Your task to perform on an android device: Do I have any events this weekend? Image 0: 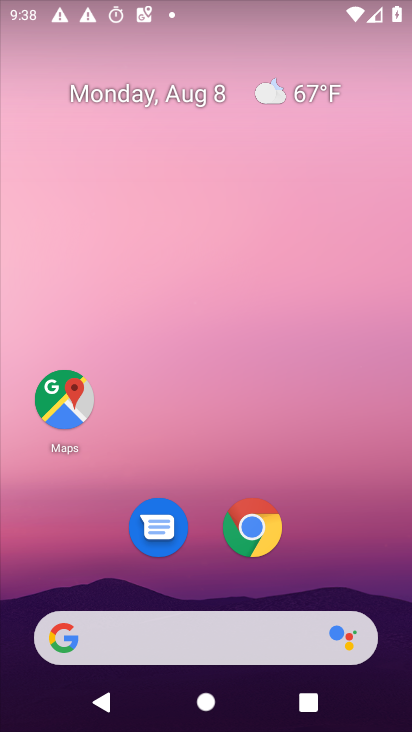
Step 0: drag from (399, 636) to (357, 132)
Your task to perform on an android device: Do I have any events this weekend? Image 1: 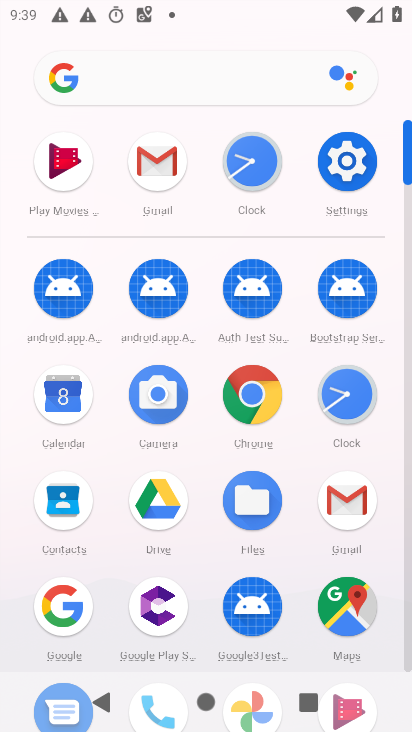
Step 1: click (62, 396)
Your task to perform on an android device: Do I have any events this weekend? Image 2: 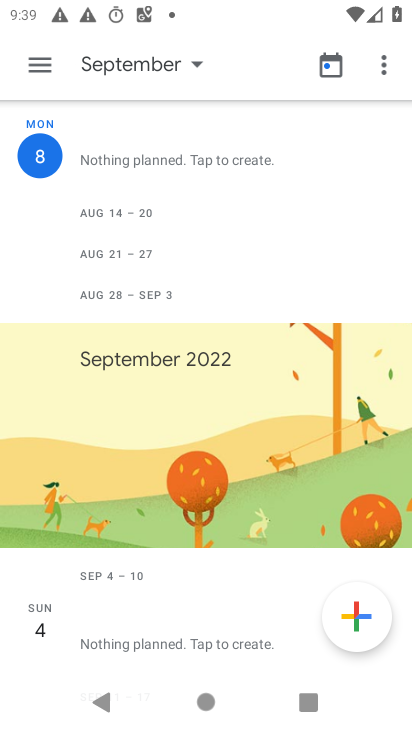
Step 2: click (190, 59)
Your task to perform on an android device: Do I have any events this weekend? Image 3: 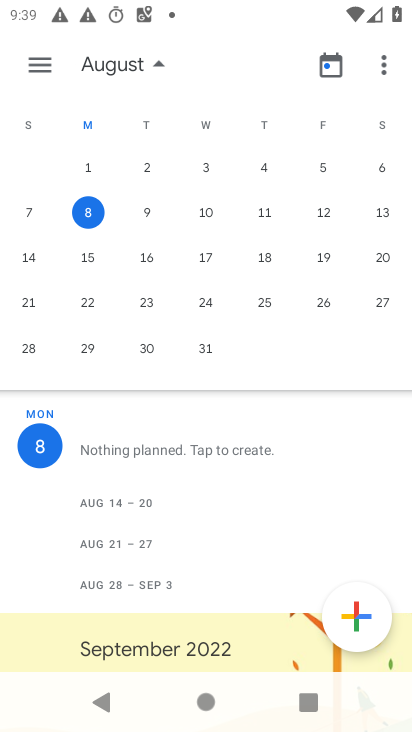
Step 3: drag from (18, 270) to (395, 260)
Your task to perform on an android device: Do I have any events this weekend? Image 4: 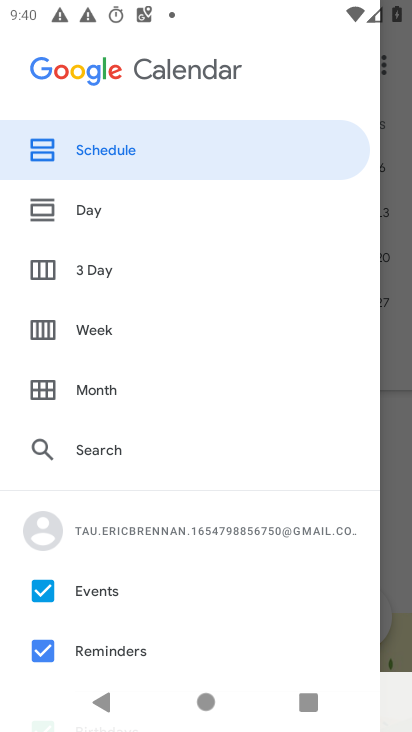
Step 4: press back button
Your task to perform on an android device: Do I have any events this weekend? Image 5: 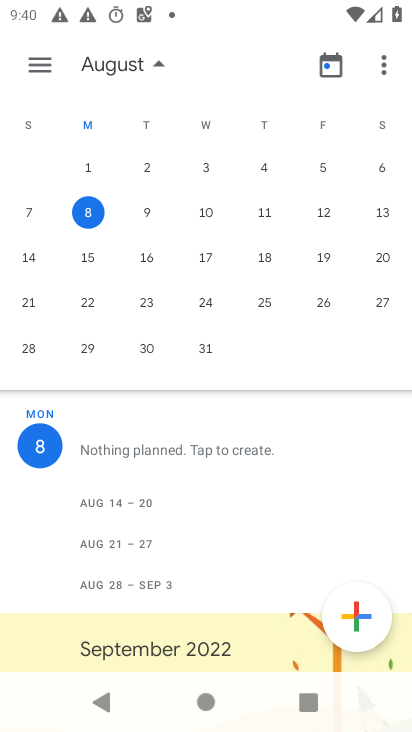
Step 5: drag from (68, 298) to (400, 247)
Your task to perform on an android device: Do I have any events this weekend? Image 6: 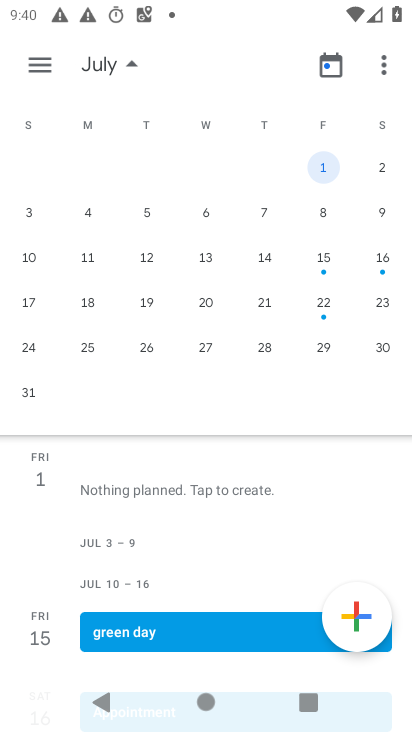
Step 6: drag from (391, 297) to (26, 265)
Your task to perform on an android device: Do I have any events this weekend? Image 7: 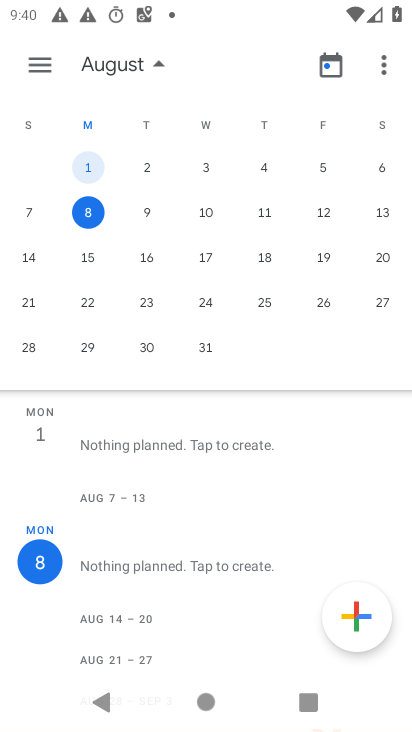
Step 7: click (46, 67)
Your task to perform on an android device: Do I have any events this weekend? Image 8: 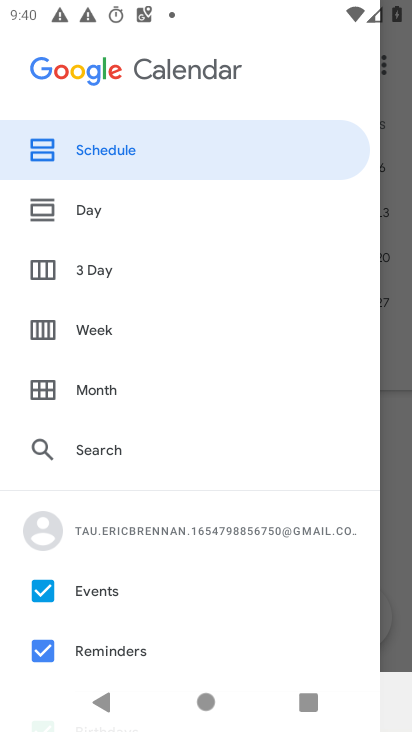
Step 8: click (83, 328)
Your task to perform on an android device: Do I have any events this weekend? Image 9: 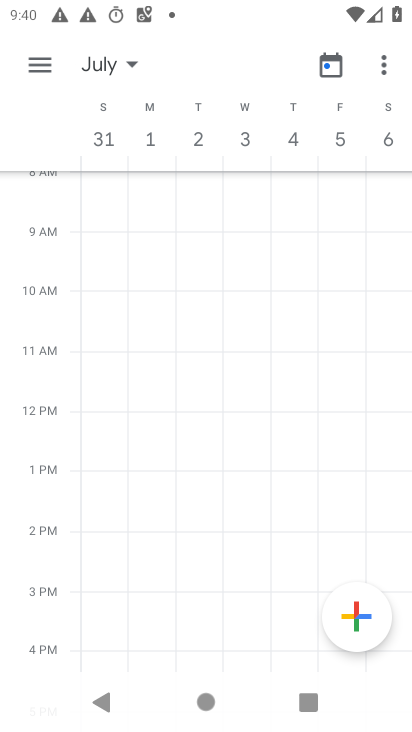
Step 9: click (44, 60)
Your task to perform on an android device: Do I have any events this weekend? Image 10: 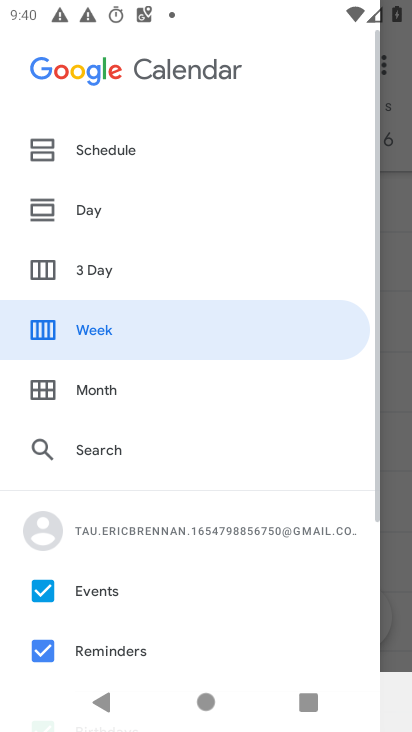
Step 10: click (93, 145)
Your task to perform on an android device: Do I have any events this weekend? Image 11: 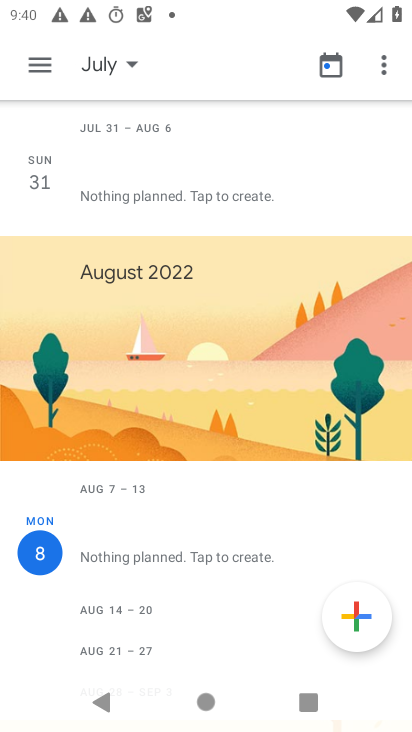
Step 11: task complete